Your task to perform on an android device: Search for vegetarian restaurants on Maps Image 0: 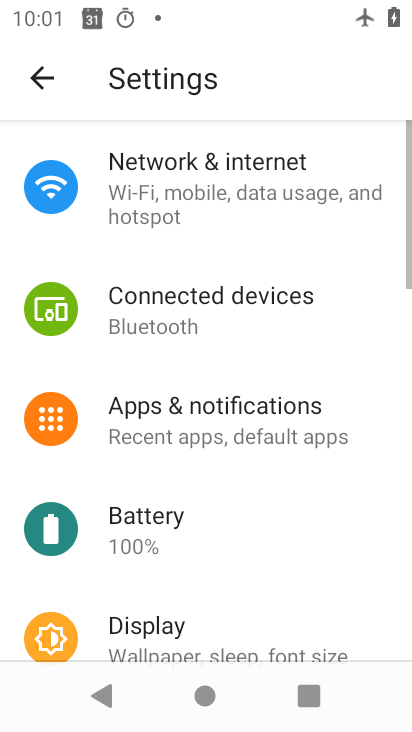
Step 0: press home button
Your task to perform on an android device: Search for vegetarian restaurants on Maps Image 1: 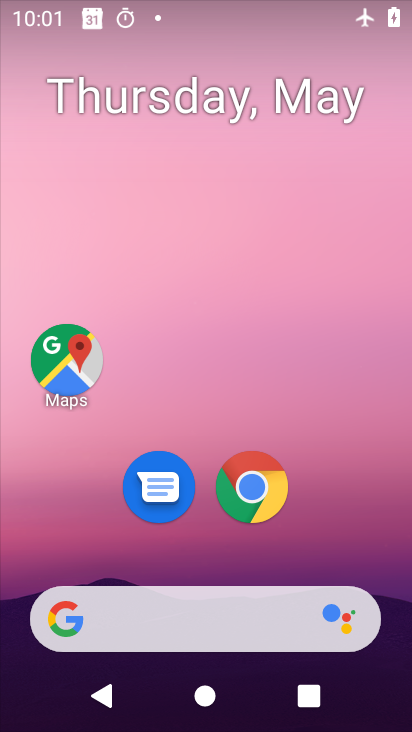
Step 1: click (81, 355)
Your task to perform on an android device: Search for vegetarian restaurants on Maps Image 2: 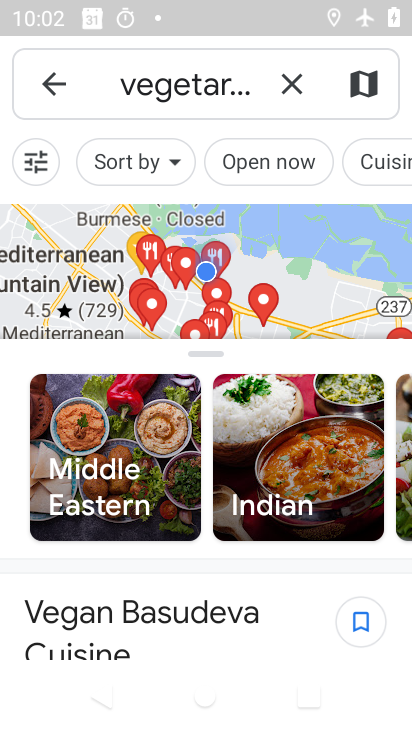
Step 2: task complete